Your task to perform on an android device: set the stopwatch Image 0: 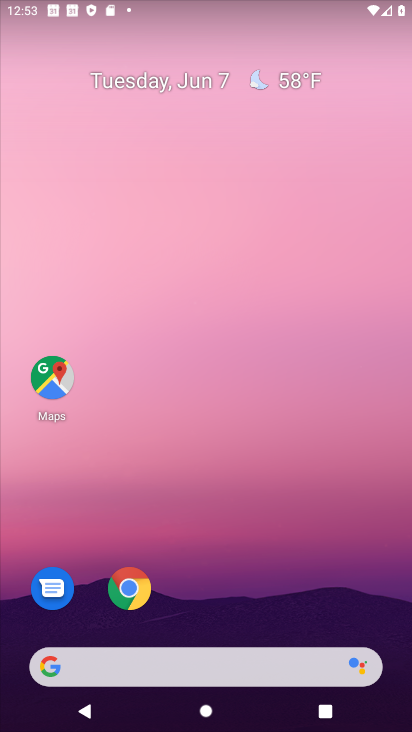
Step 0: drag from (224, 615) to (229, 230)
Your task to perform on an android device: set the stopwatch Image 1: 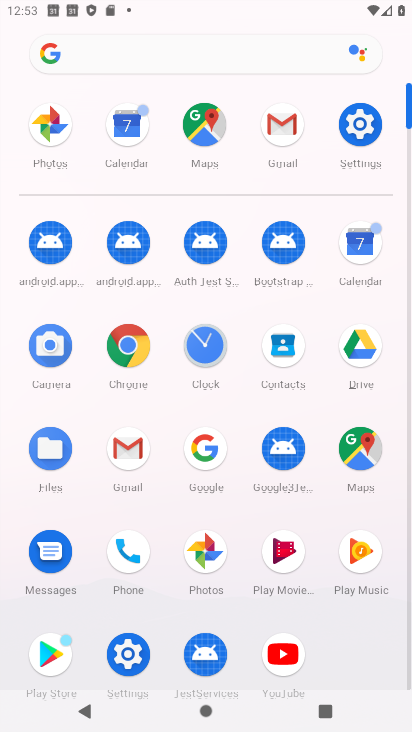
Step 1: click (209, 339)
Your task to perform on an android device: set the stopwatch Image 2: 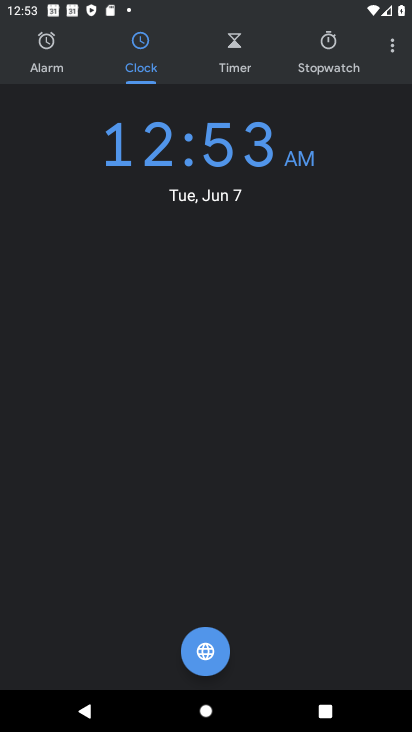
Step 2: task complete